Your task to perform on an android device: What's the weather? Image 0: 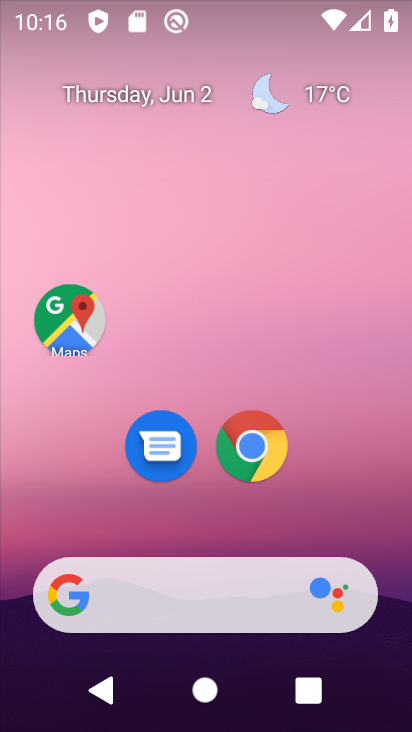
Step 0: click (270, 454)
Your task to perform on an android device: What's the weather? Image 1: 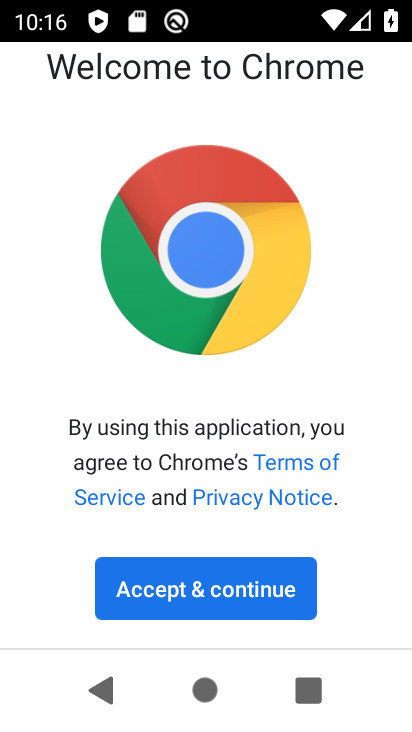
Step 1: click (260, 589)
Your task to perform on an android device: What's the weather? Image 2: 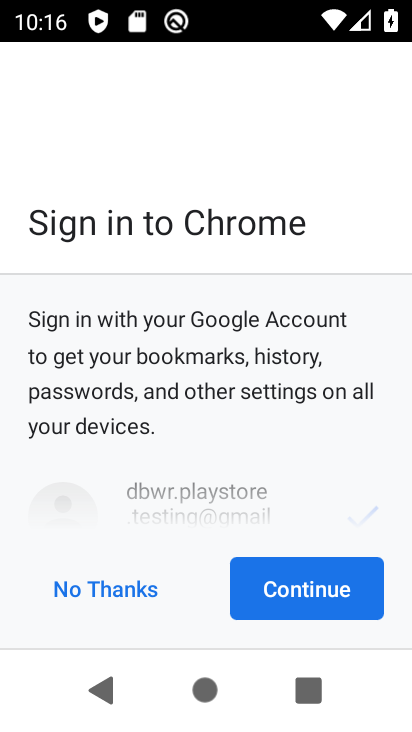
Step 2: click (353, 598)
Your task to perform on an android device: What's the weather? Image 3: 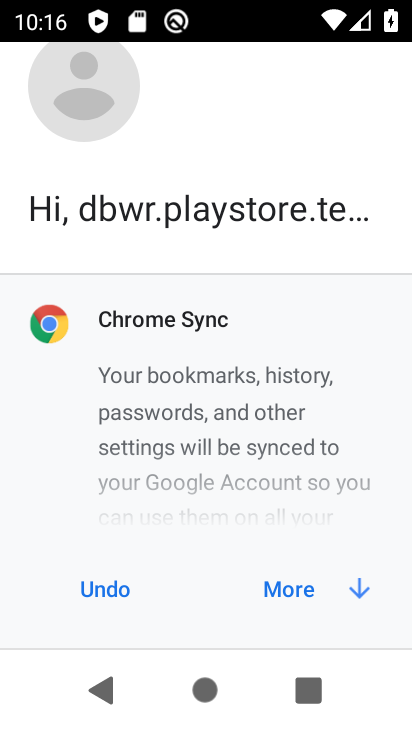
Step 3: click (353, 598)
Your task to perform on an android device: What's the weather? Image 4: 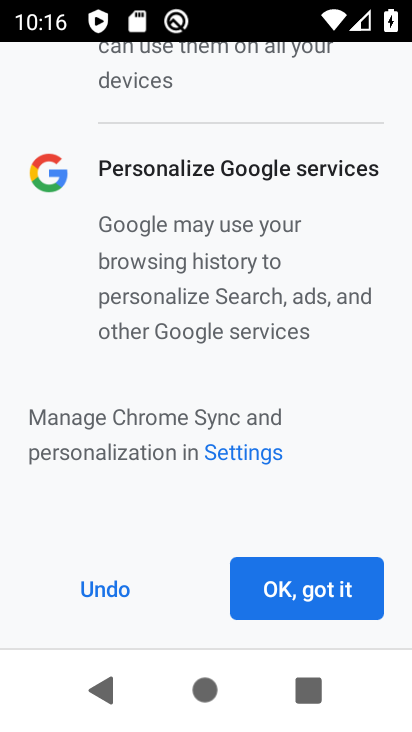
Step 4: click (353, 598)
Your task to perform on an android device: What's the weather? Image 5: 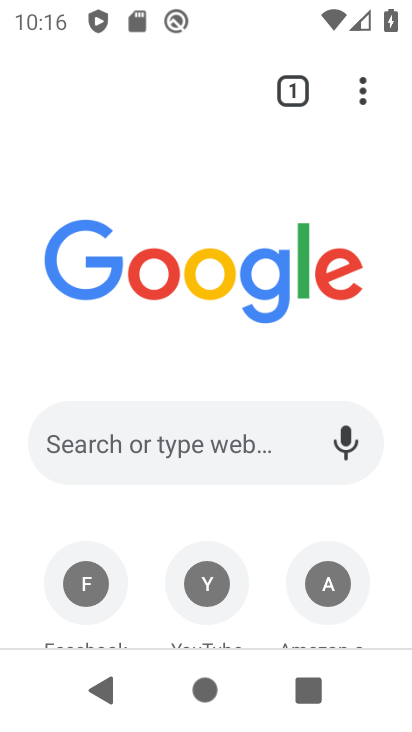
Step 5: click (227, 463)
Your task to perform on an android device: What's the weather? Image 6: 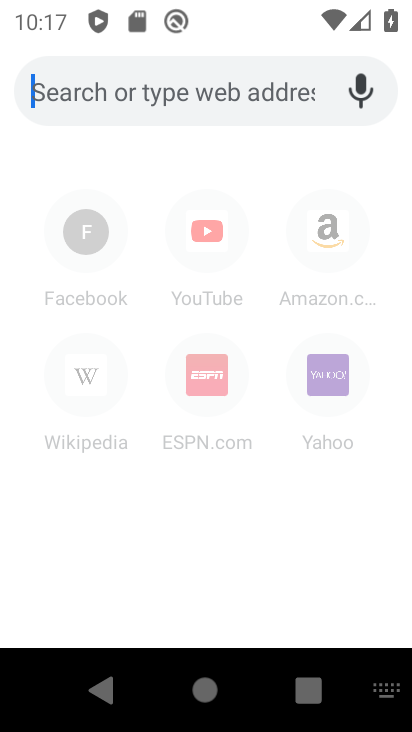
Step 6: type "What's the weather?"
Your task to perform on an android device: What's the weather? Image 7: 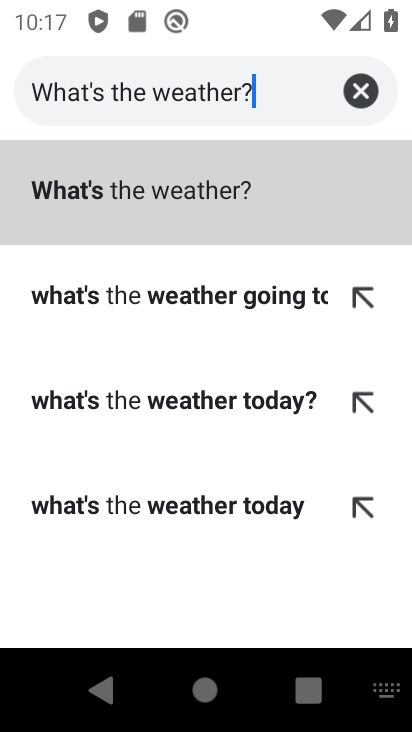
Step 7: type ""
Your task to perform on an android device: What's the weather? Image 8: 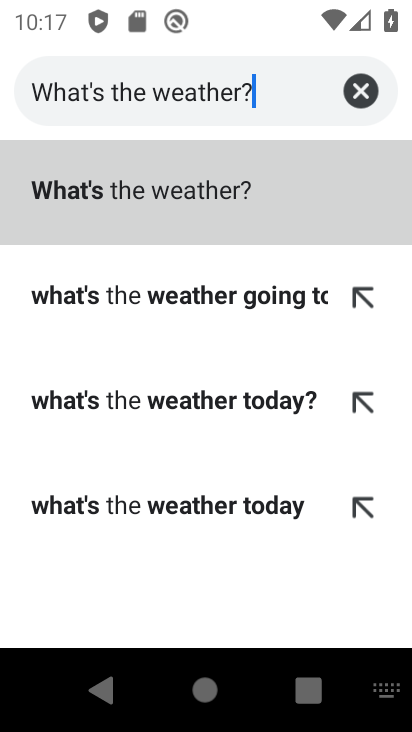
Step 8: click (316, 166)
Your task to perform on an android device: What's the weather? Image 9: 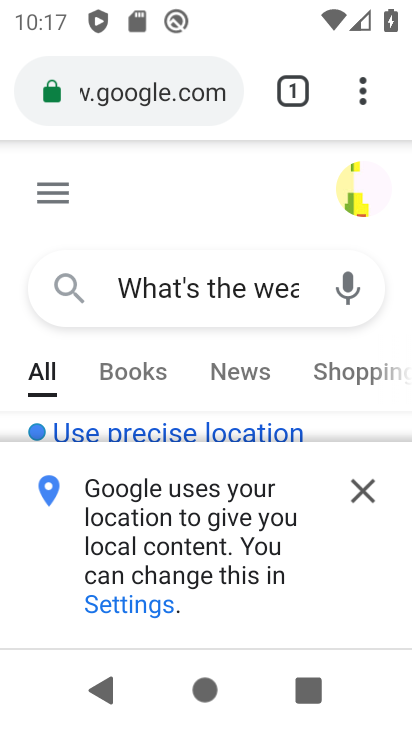
Step 9: task complete